Your task to perform on an android device: Go to display settings Image 0: 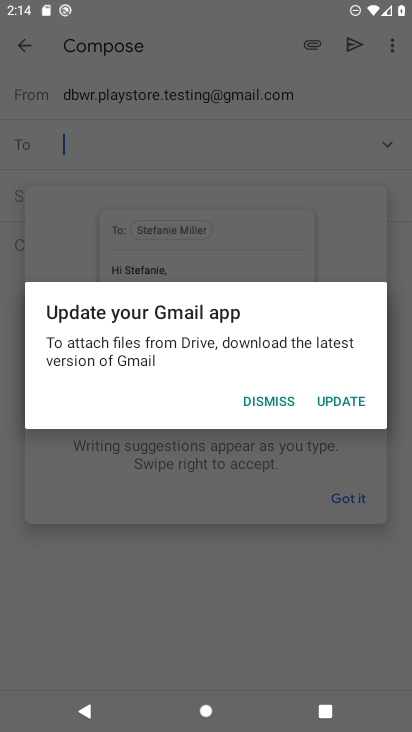
Step 0: press home button
Your task to perform on an android device: Go to display settings Image 1: 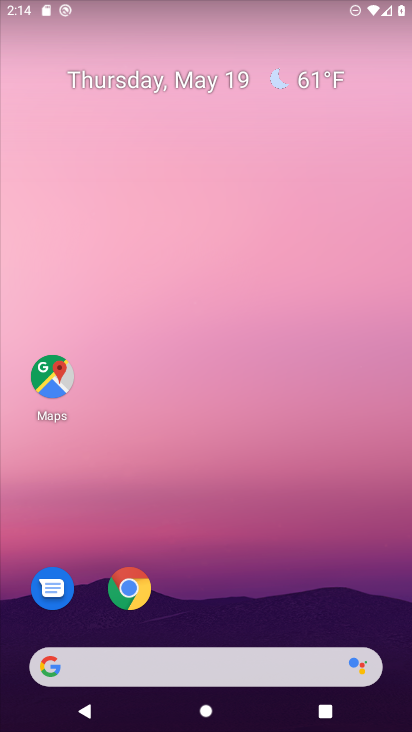
Step 1: drag from (322, 615) to (314, 10)
Your task to perform on an android device: Go to display settings Image 2: 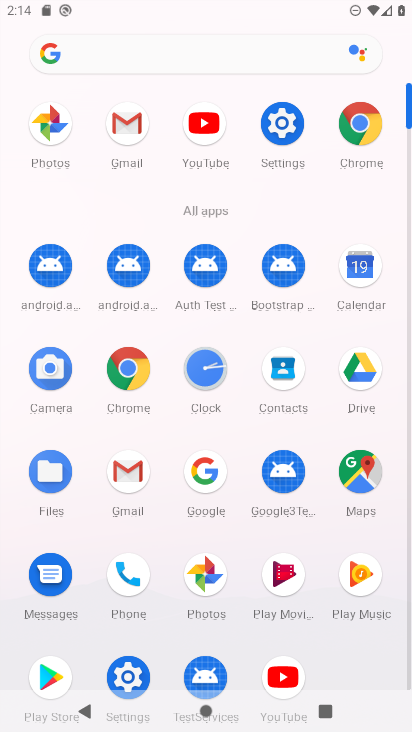
Step 2: click (282, 131)
Your task to perform on an android device: Go to display settings Image 3: 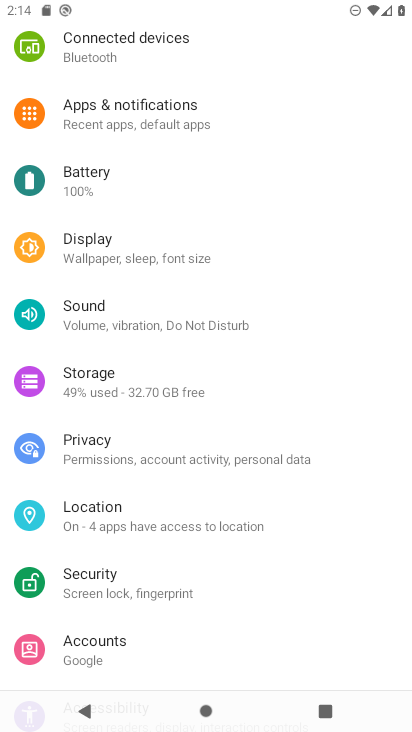
Step 3: click (81, 252)
Your task to perform on an android device: Go to display settings Image 4: 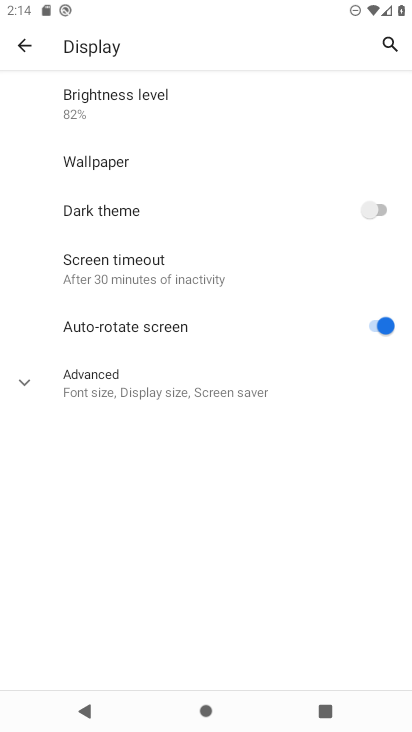
Step 4: task complete